Your task to perform on an android device: turn off smart reply in the gmail app Image 0: 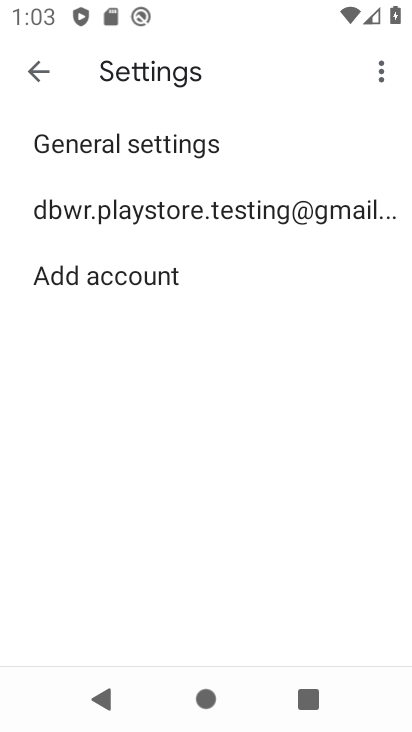
Step 0: click (195, 202)
Your task to perform on an android device: turn off smart reply in the gmail app Image 1: 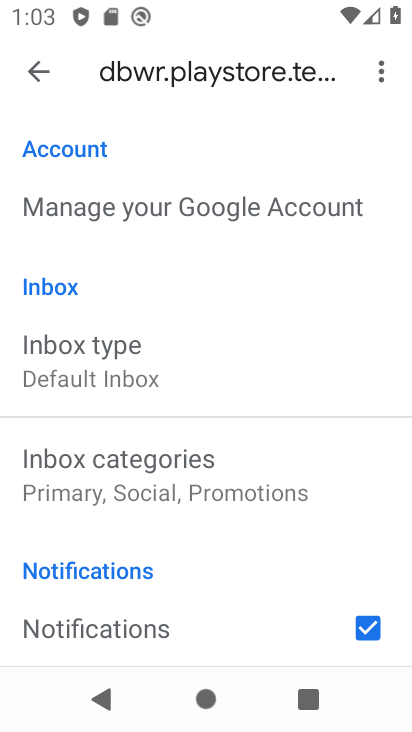
Step 1: drag from (206, 535) to (185, 175)
Your task to perform on an android device: turn off smart reply in the gmail app Image 2: 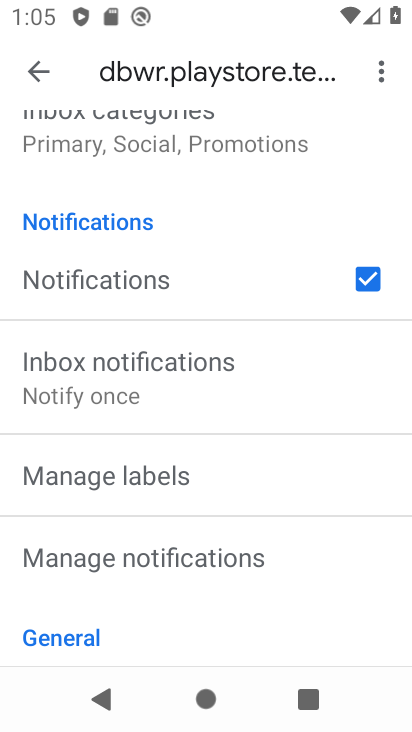
Step 2: drag from (146, 515) to (252, 220)
Your task to perform on an android device: turn off smart reply in the gmail app Image 3: 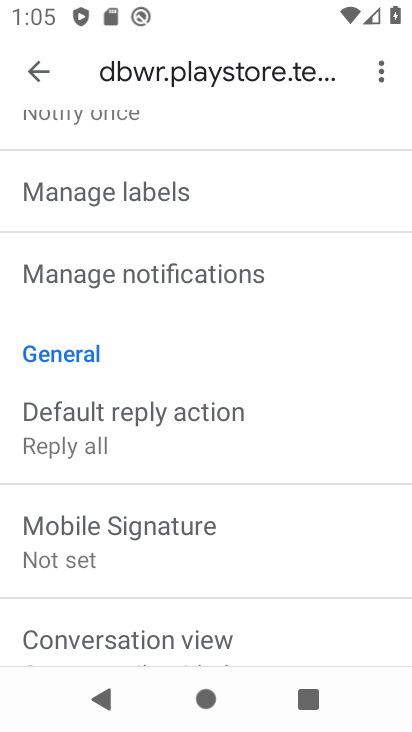
Step 3: drag from (161, 570) to (252, 217)
Your task to perform on an android device: turn off smart reply in the gmail app Image 4: 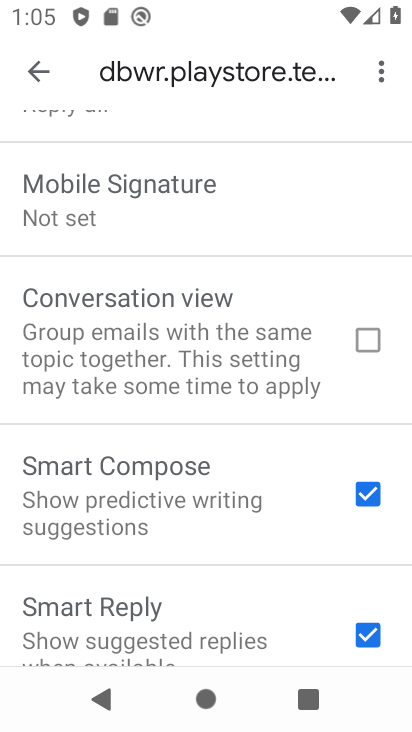
Step 4: click (360, 614)
Your task to perform on an android device: turn off smart reply in the gmail app Image 5: 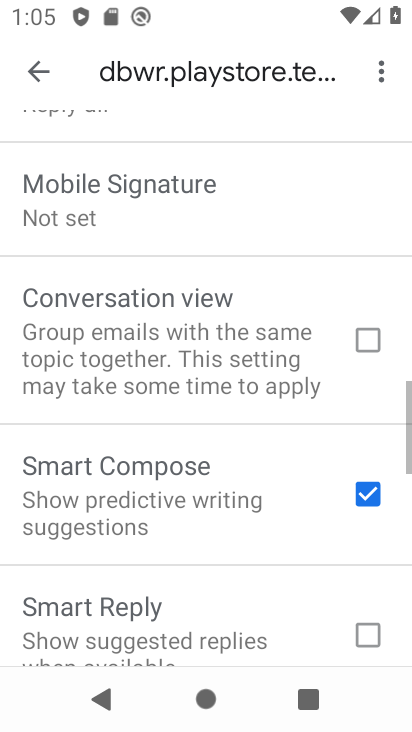
Step 5: task complete